Your task to perform on an android device: Go to Google Image 0: 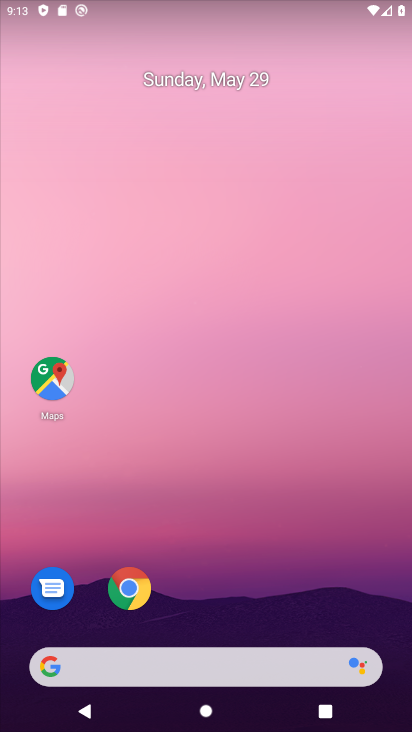
Step 0: click (128, 665)
Your task to perform on an android device: Go to Google Image 1: 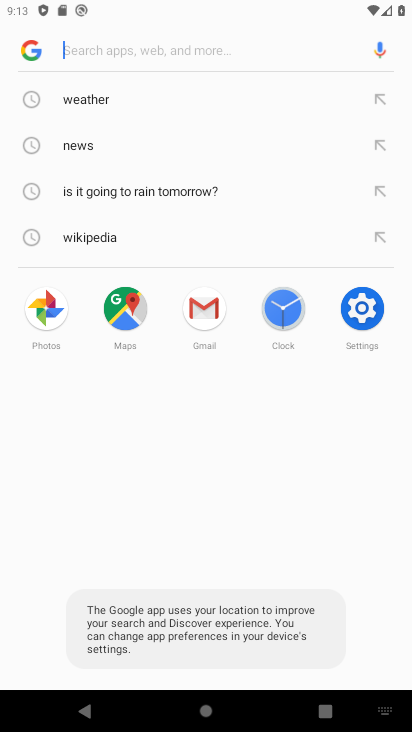
Step 1: click (29, 50)
Your task to perform on an android device: Go to Google Image 2: 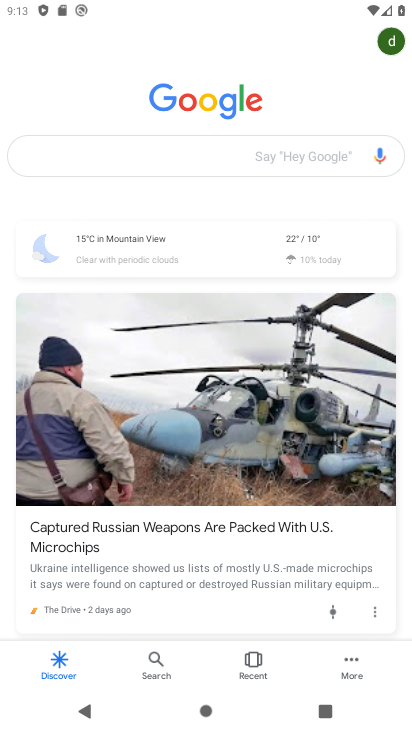
Step 2: task complete